Your task to perform on an android device: Open location settings Image 0: 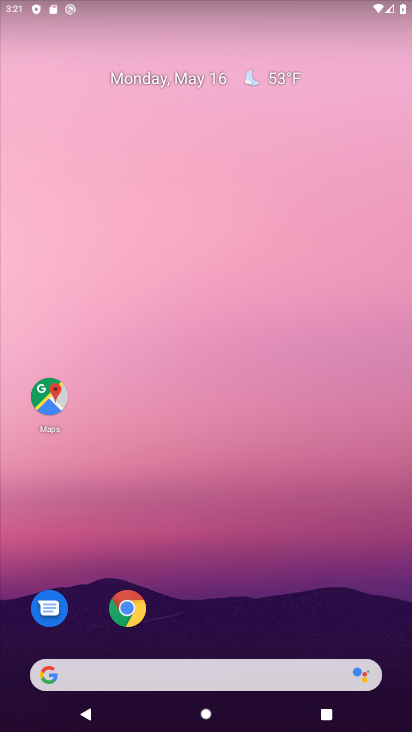
Step 0: drag from (252, 586) to (228, 73)
Your task to perform on an android device: Open location settings Image 1: 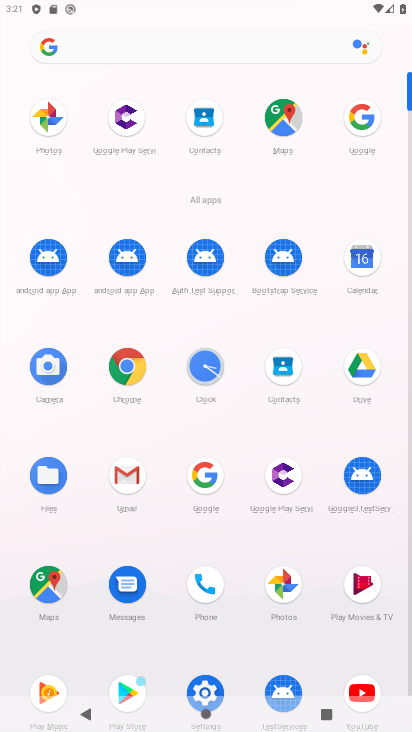
Step 1: click (205, 691)
Your task to perform on an android device: Open location settings Image 2: 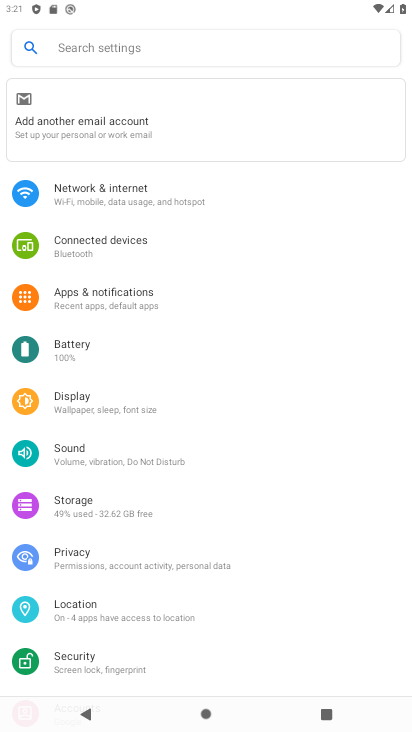
Step 2: click (80, 611)
Your task to perform on an android device: Open location settings Image 3: 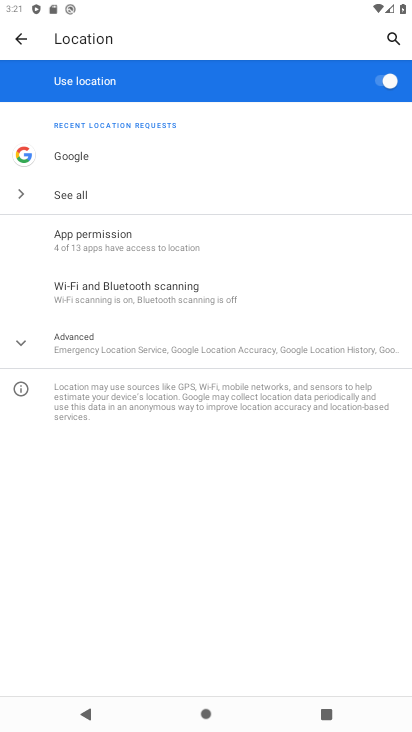
Step 3: task complete